Your task to perform on an android device: install app "Chime – Mobile Banking" Image 0: 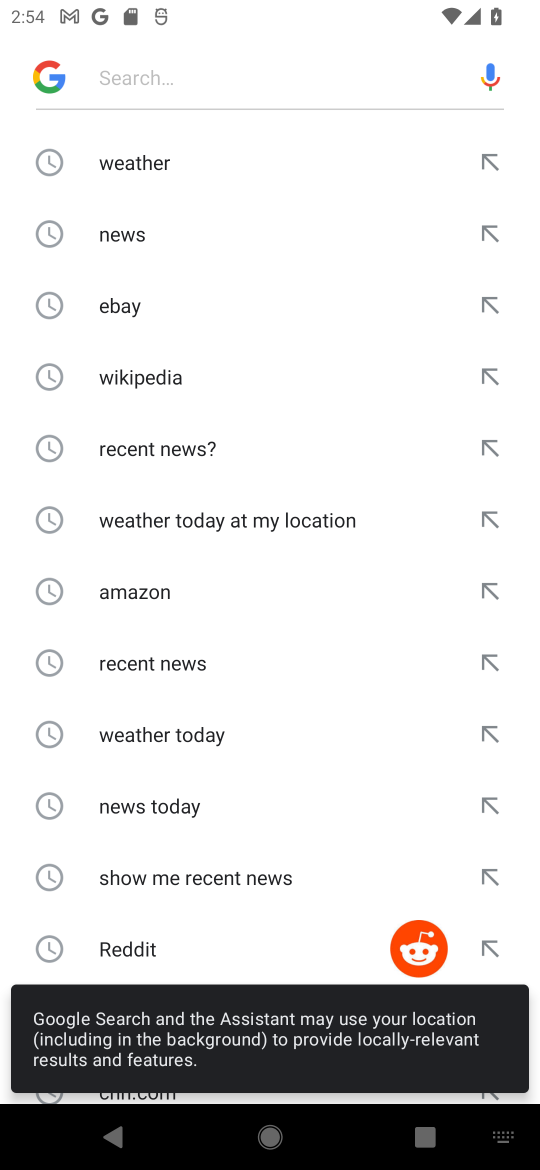
Step 0: press home button
Your task to perform on an android device: install app "Chime – Mobile Banking" Image 1: 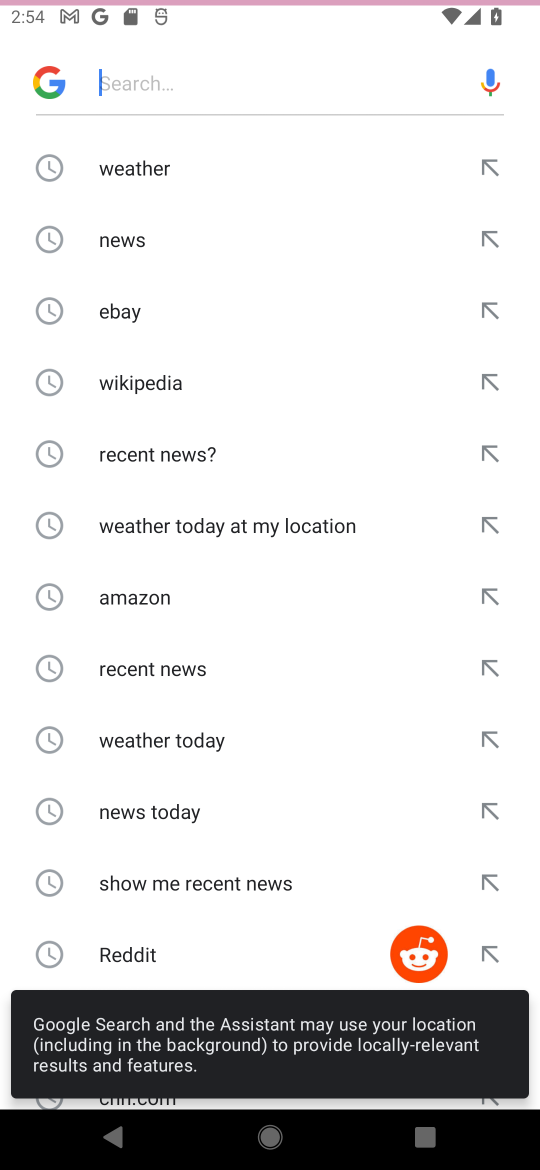
Step 1: drag from (293, 811) to (393, 275)
Your task to perform on an android device: install app "Chime – Mobile Banking" Image 2: 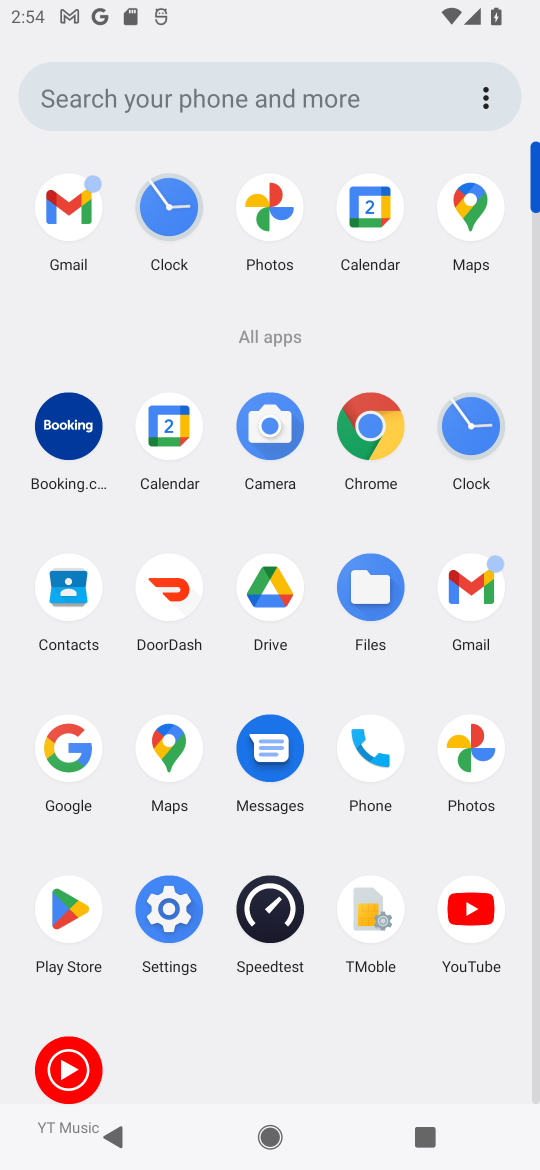
Step 2: drag from (209, 975) to (309, 311)
Your task to perform on an android device: install app "Chime – Mobile Banking" Image 3: 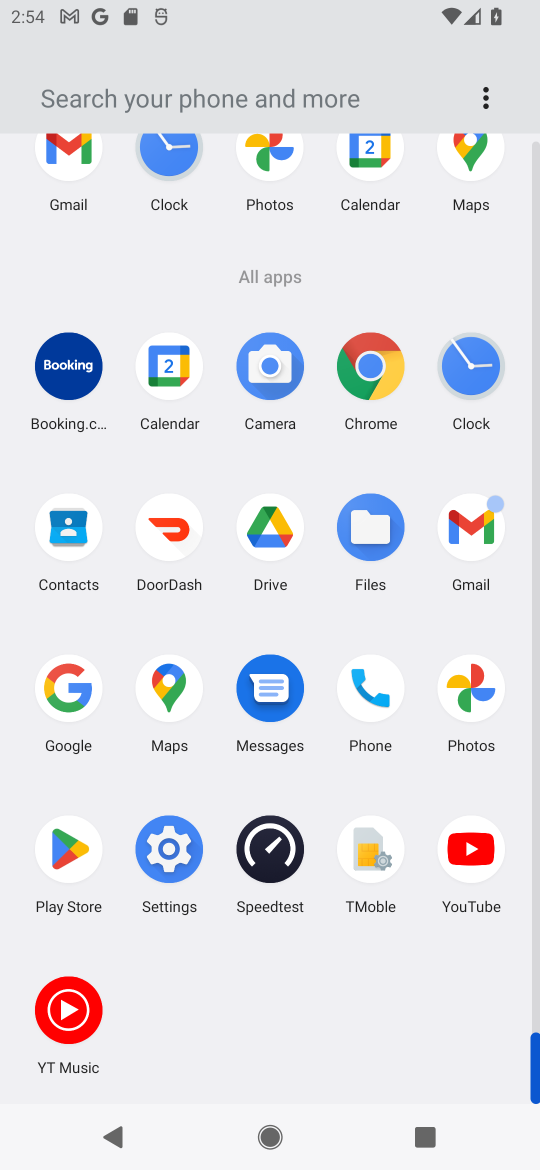
Step 3: click (55, 843)
Your task to perform on an android device: install app "Chime – Mobile Banking" Image 4: 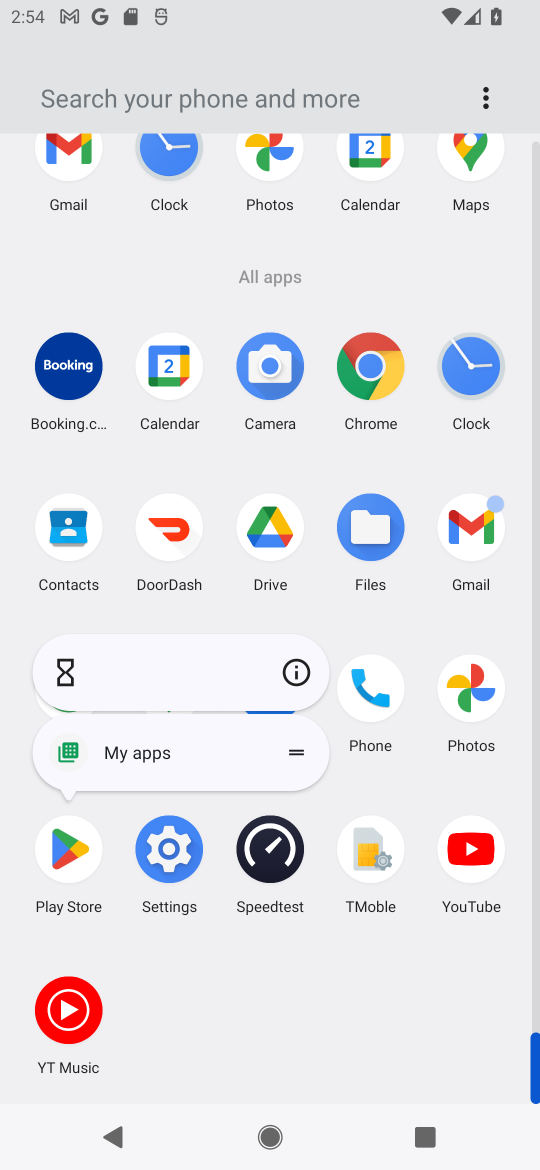
Step 4: click (294, 679)
Your task to perform on an android device: install app "Chime – Mobile Banking" Image 5: 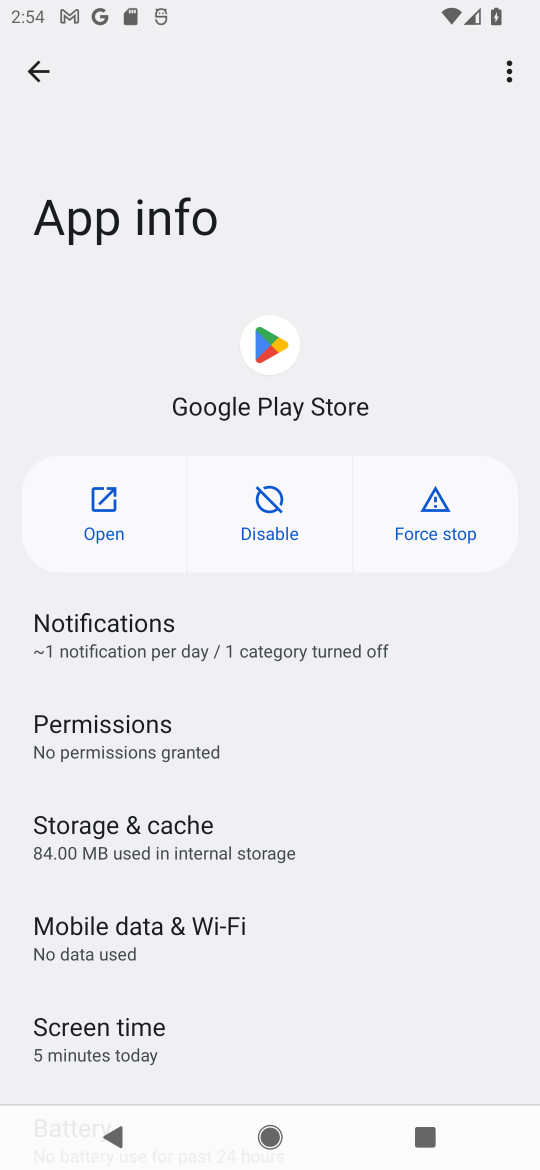
Step 5: click (94, 495)
Your task to perform on an android device: install app "Chime – Mobile Banking" Image 6: 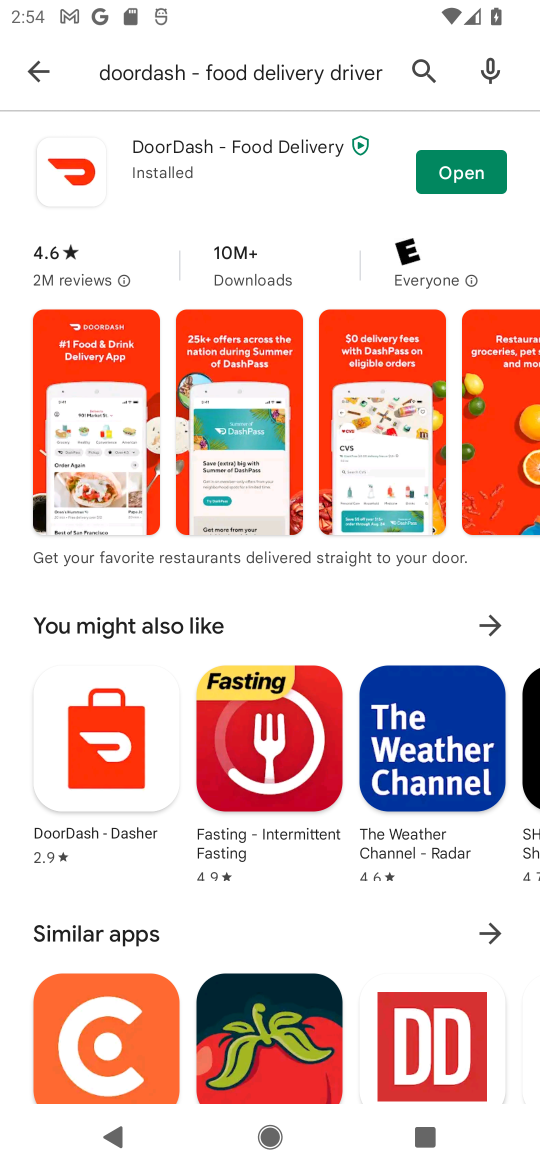
Step 6: click (421, 66)
Your task to perform on an android device: install app "Chime – Mobile Banking" Image 7: 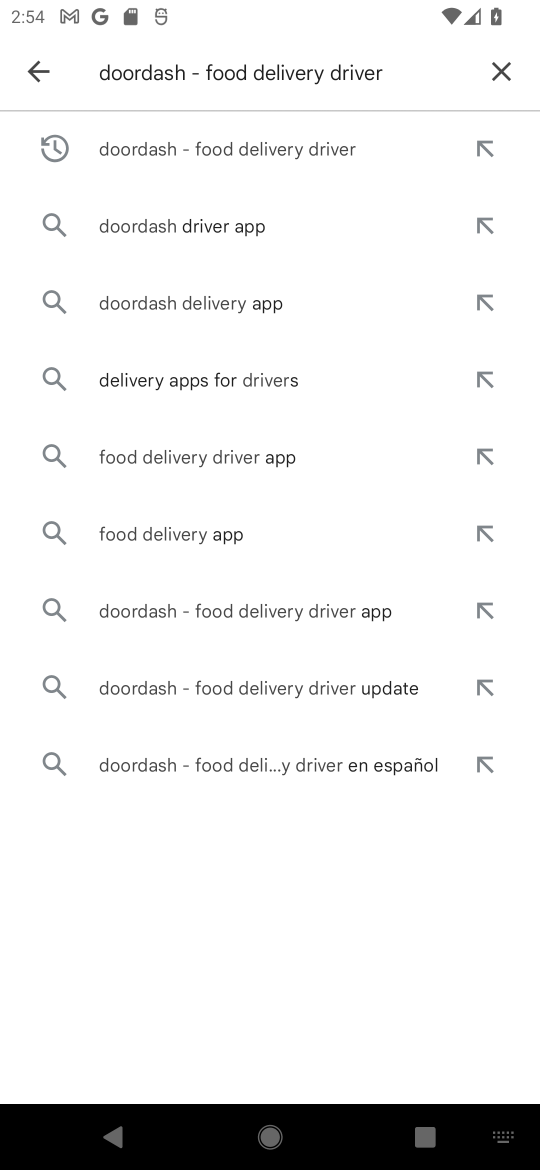
Step 7: click (496, 66)
Your task to perform on an android device: install app "Chime – Mobile Banking" Image 8: 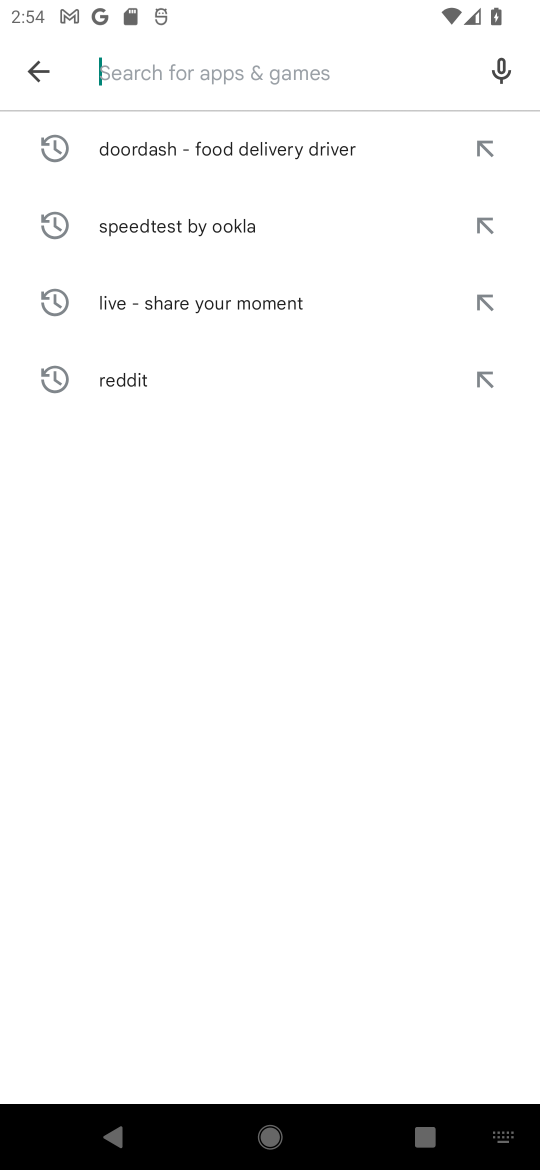
Step 8: type "Chime – Mobile Banking"
Your task to perform on an android device: install app "Chime – Mobile Banking" Image 9: 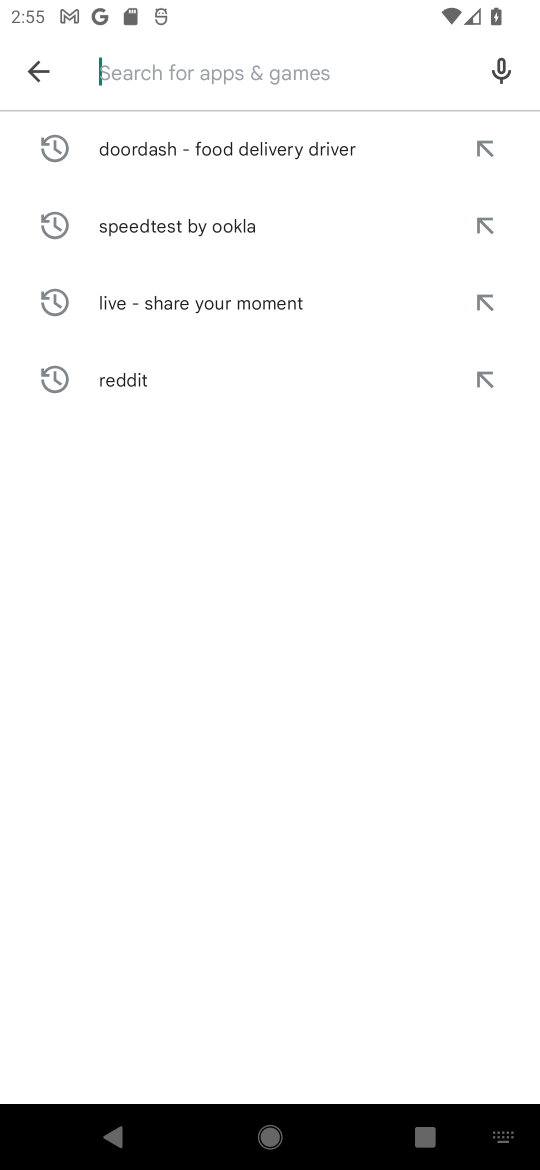
Step 9: type "Chime – Mobile Banking"
Your task to perform on an android device: install app "Chime – Mobile Banking" Image 10: 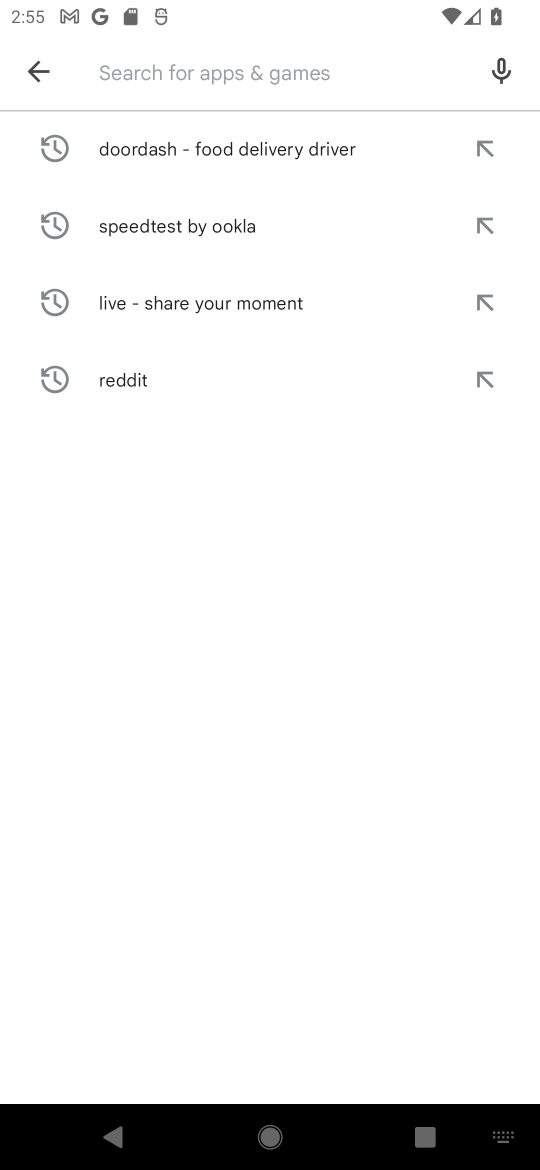
Step 10: type ""
Your task to perform on an android device: install app "Chime – Mobile Banking" Image 11: 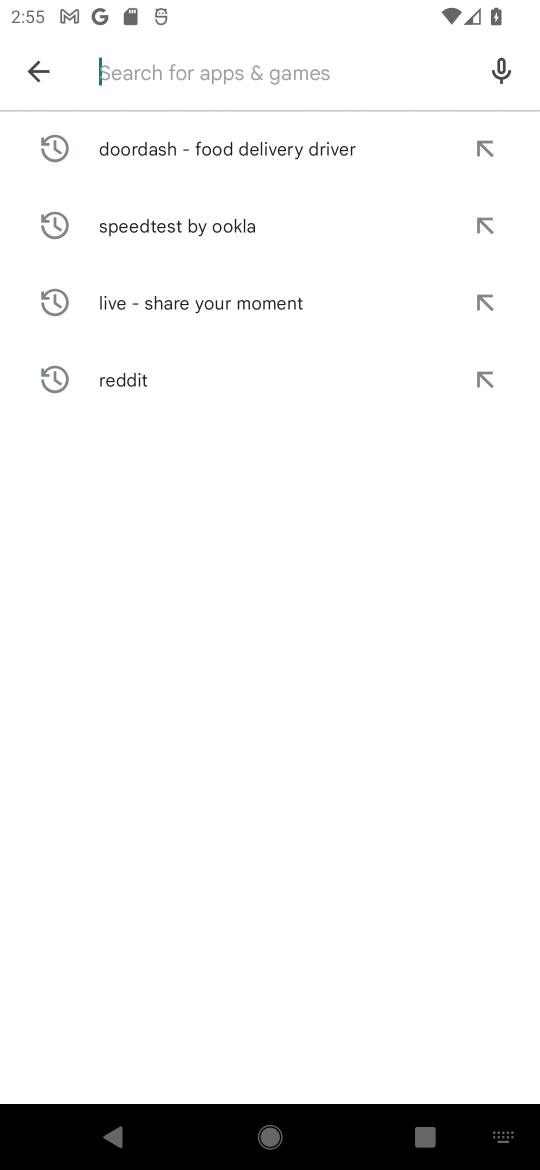
Step 11: click (126, 72)
Your task to perform on an android device: install app "Chime – Mobile Banking" Image 12: 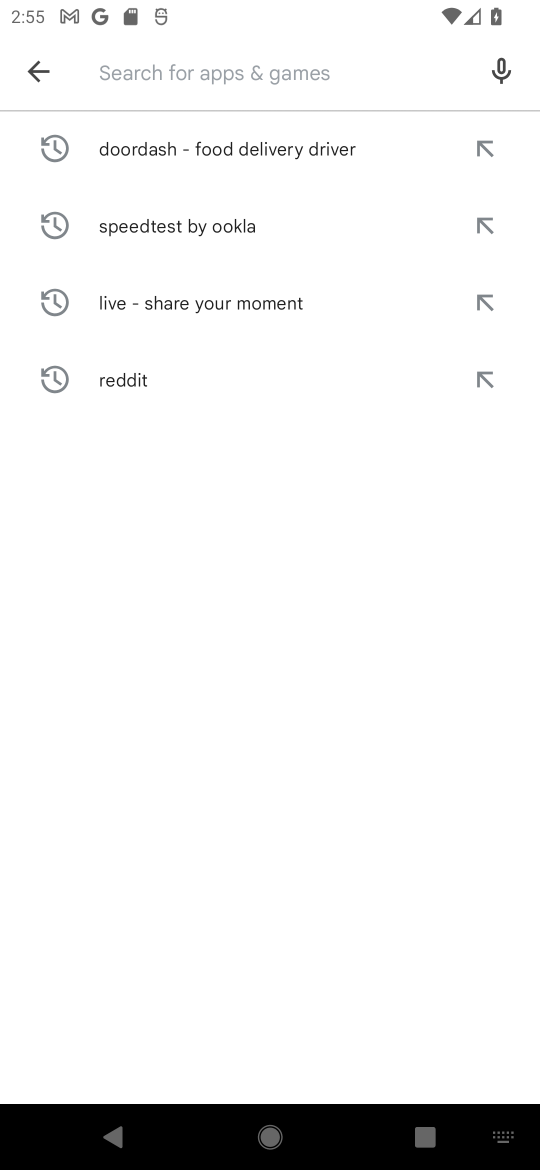
Step 12: type "Chime – Mobile Banking"
Your task to perform on an android device: install app "Chime – Mobile Banking" Image 13: 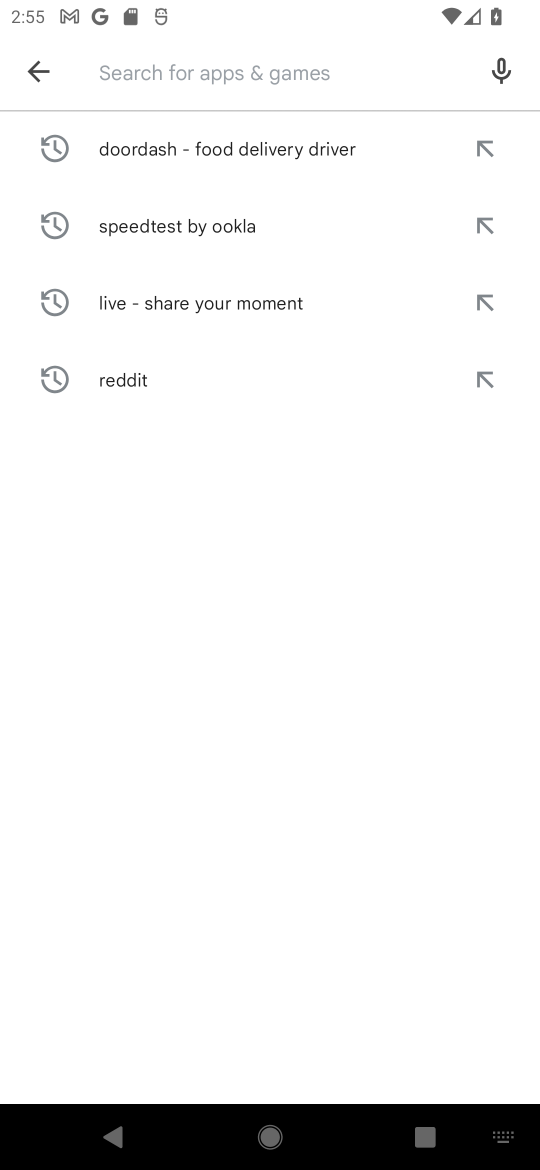
Step 13: press home button
Your task to perform on an android device: install app "Chime – Mobile Banking" Image 14: 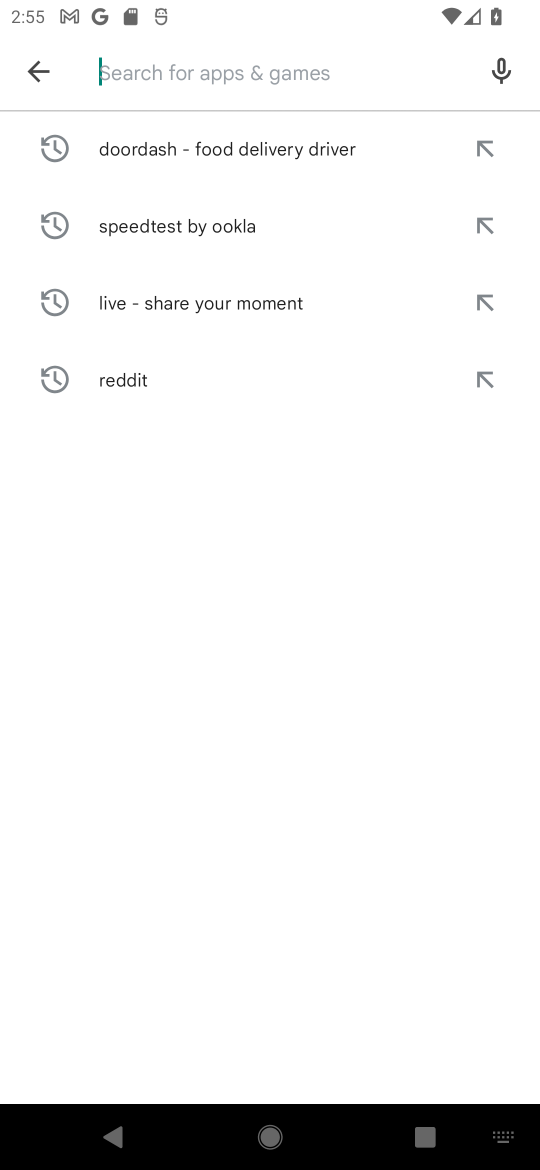
Step 14: press home button
Your task to perform on an android device: install app "Chime – Mobile Banking" Image 15: 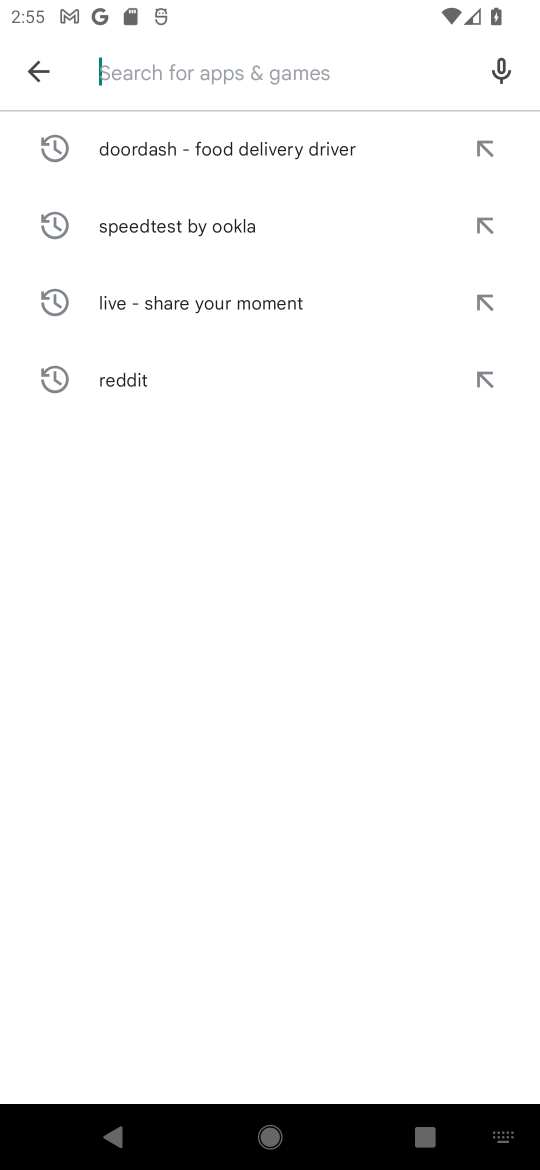
Step 15: press home button
Your task to perform on an android device: install app "Chime – Mobile Banking" Image 16: 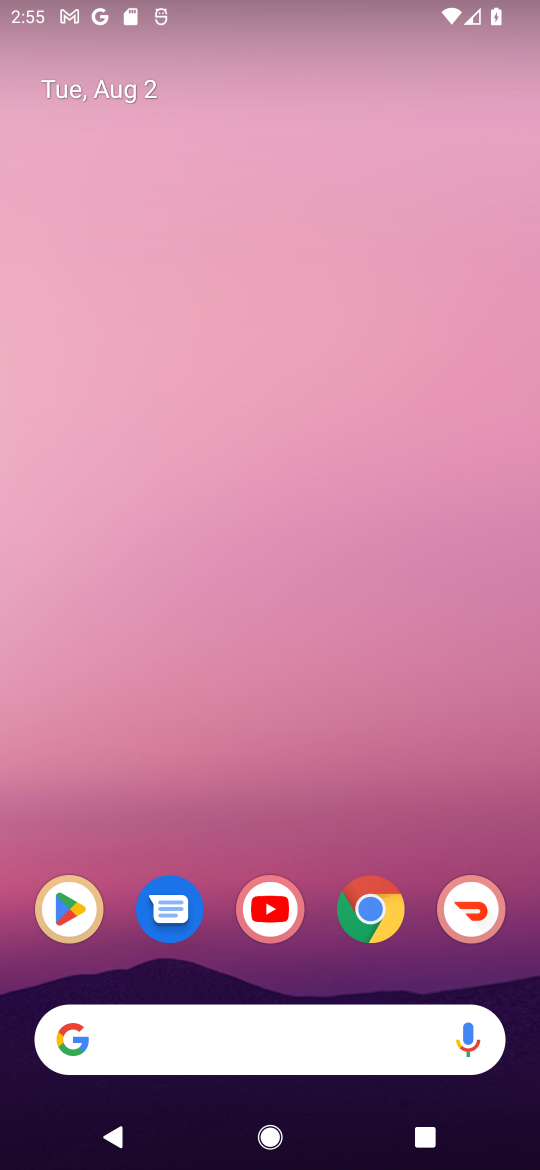
Step 16: drag from (219, 984) to (301, 321)
Your task to perform on an android device: install app "Chime – Mobile Banking" Image 17: 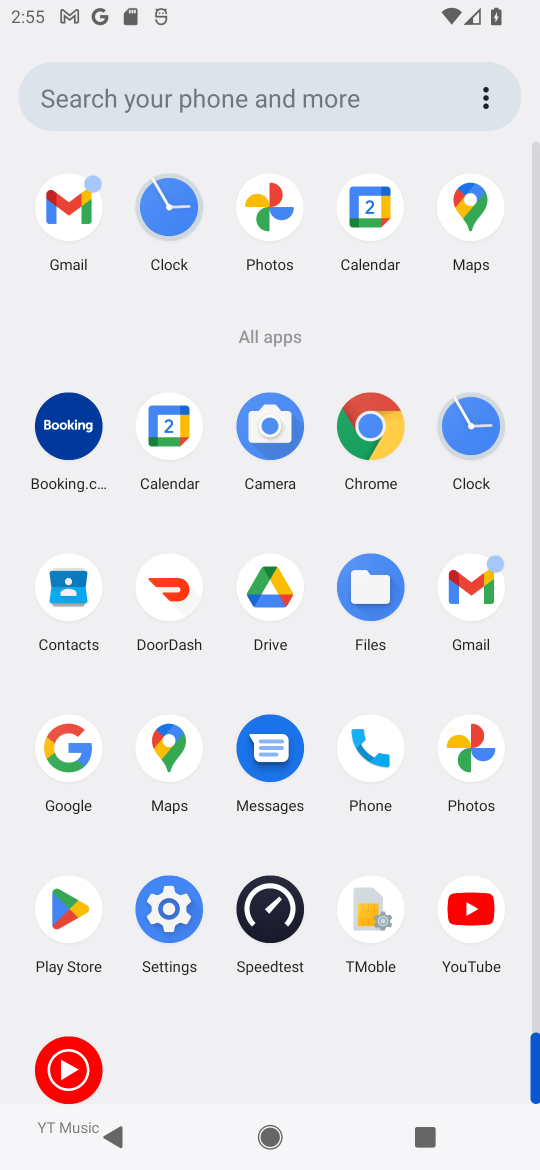
Step 17: click (47, 942)
Your task to perform on an android device: install app "Chime – Mobile Banking" Image 18: 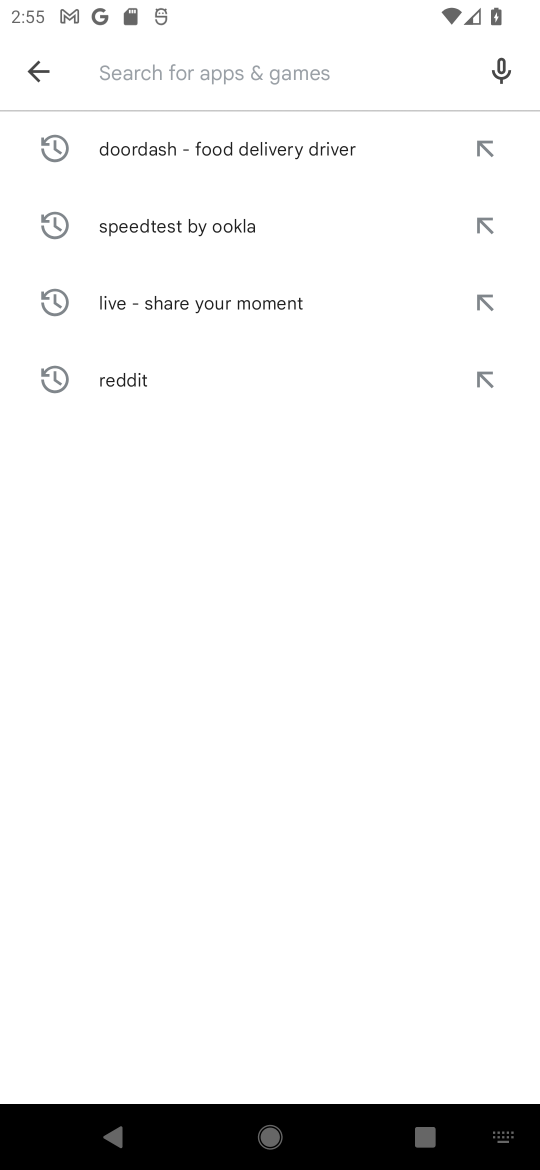
Step 18: type "Chime – Mobile Banking"
Your task to perform on an android device: install app "Chime – Mobile Banking" Image 19: 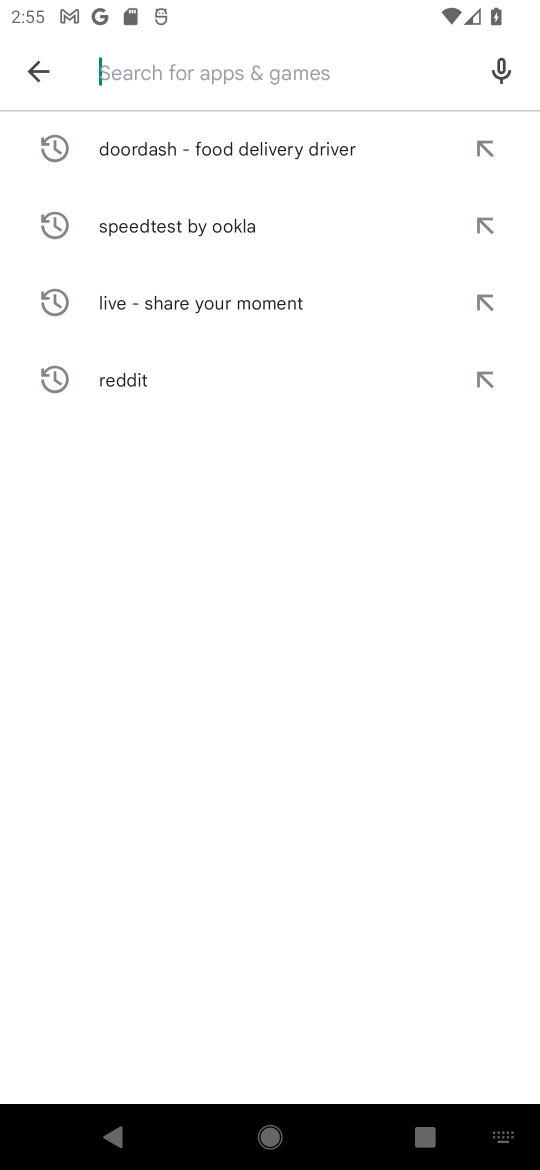
Step 19: type ""
Your task to perform on an android device: install app "Chime – Mobile Banking" Image 20: 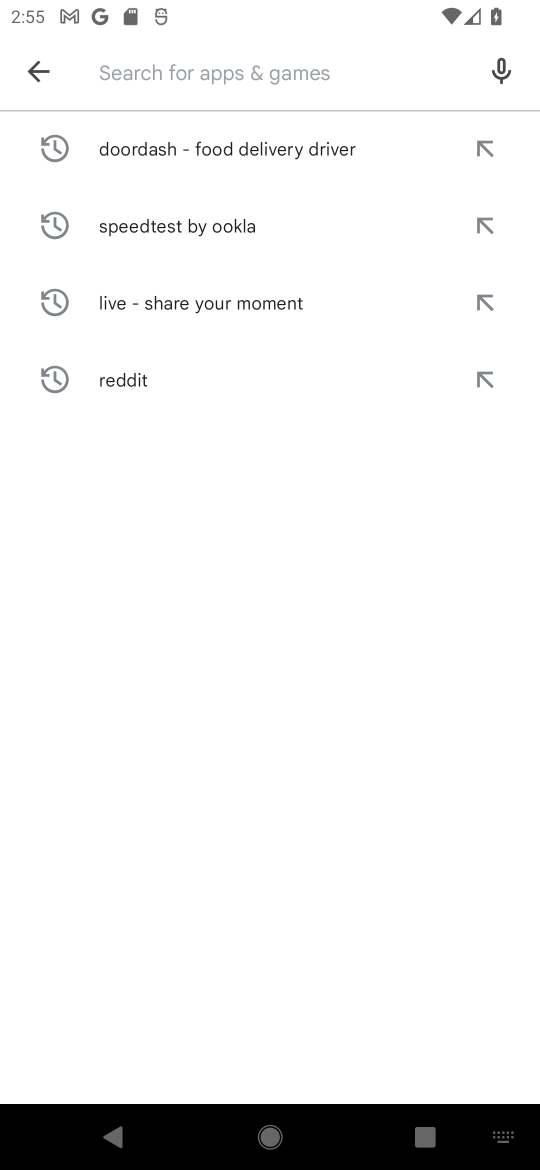
Step 20: task complete